Your task to perform on an android device: turn on sleep mode Image 0: 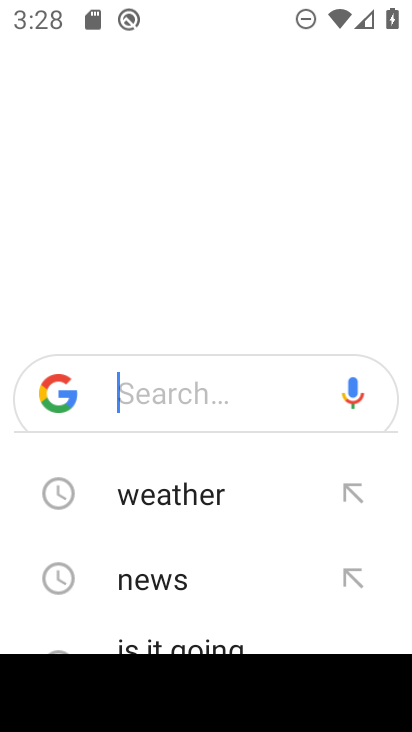
Step 0: press back button
Your task to perform on an android device: turn on sleep mode Image 1: 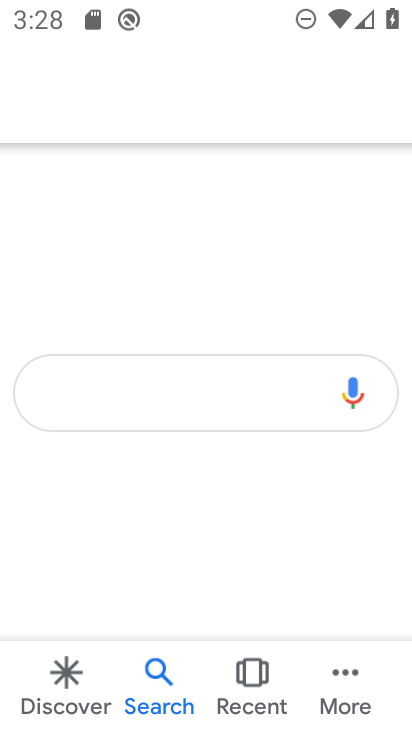
Step 1: press back button
Your task to perform on an android device: turn on sleep mode Image 2: 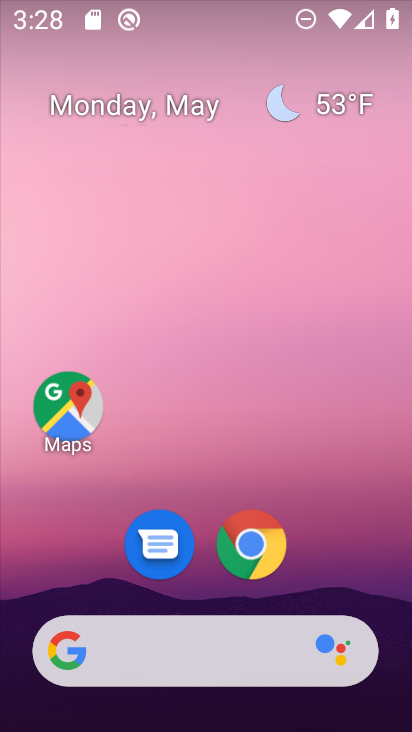
Step 2: drag from (176, 23) to (181, 599)
Your task to perform on an android device: turn on sleep mode Image 3: 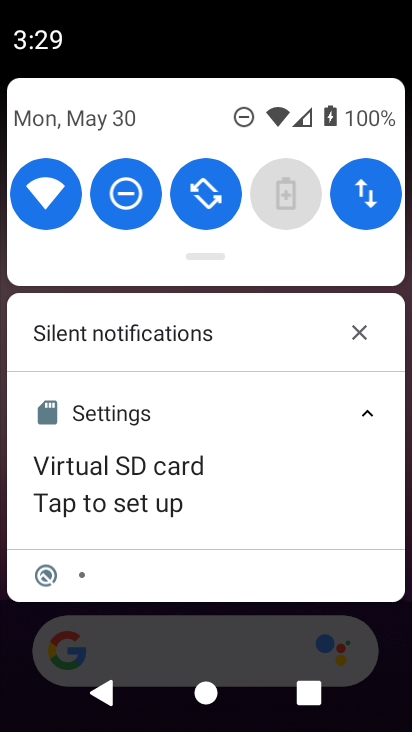
Step 3: drag from (230, 259) to (212, 731)
Your task to perform on an android device: turn on sleep mode Image 4: 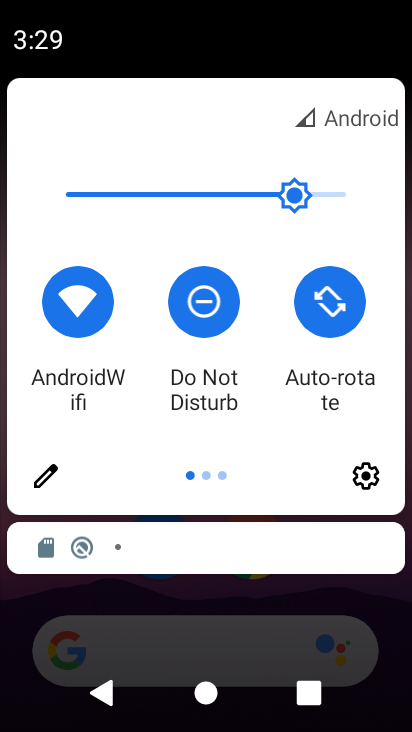
Step 4: click (41, 470)
Your task to perform on an android device: turn on sleep mode Image 5: 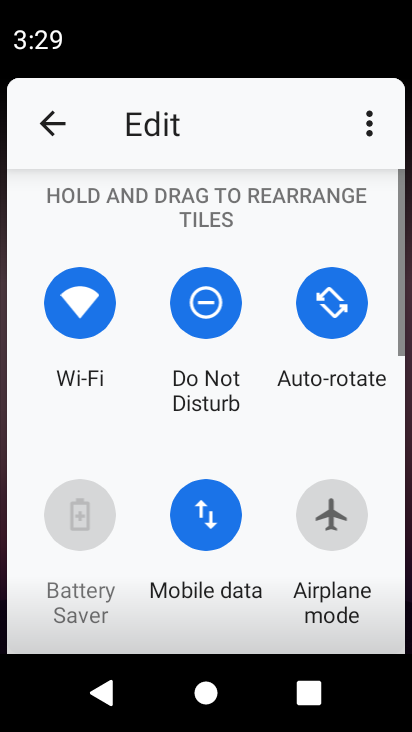
Step 5: task complete